Your task to perform on an android device: Go to Maps Image 0: 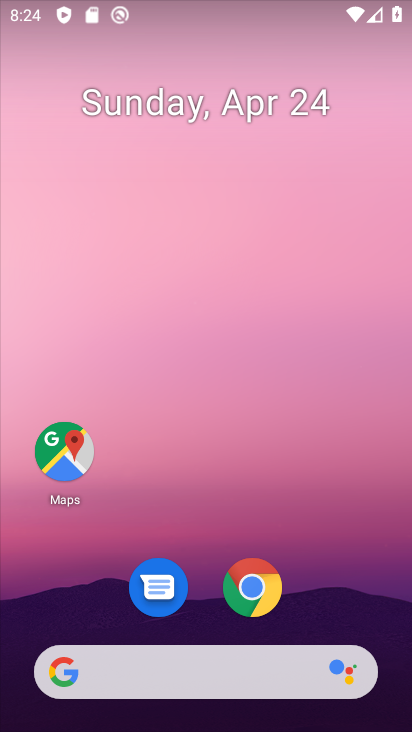
Step 0: drag from (198, 607) to (317, 55)
Your task to perform on an android device: Go to Maps Image 1: 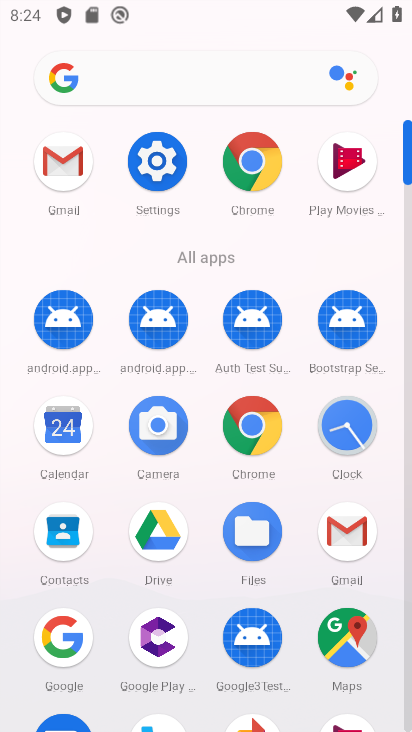
Step 1: drag from (189, 645) to (308, 117)
Your task to perform on an android device: Go to Maps Image 2: 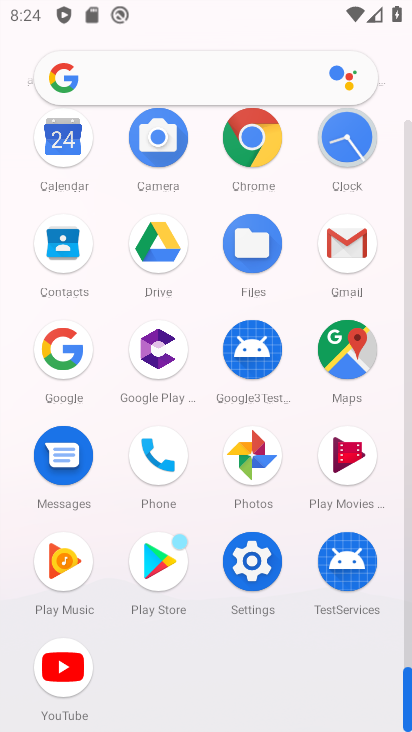
Step 2: click (343, 351)
Your task to perform on an android device: Go to Maps Image 3: 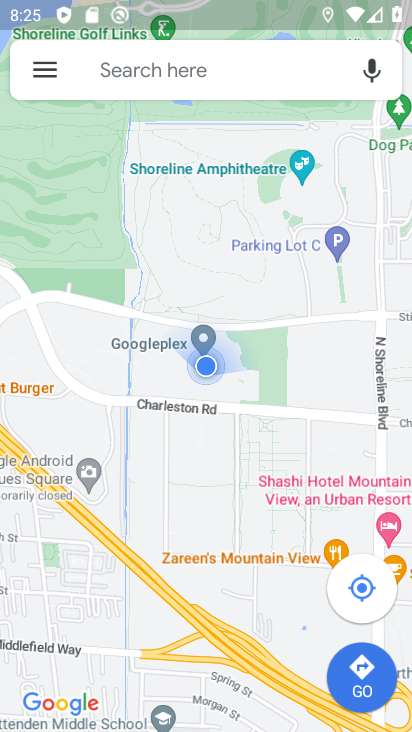
Step 3: task complete